Your task to perform on an android device: Go to display settings Image 0: 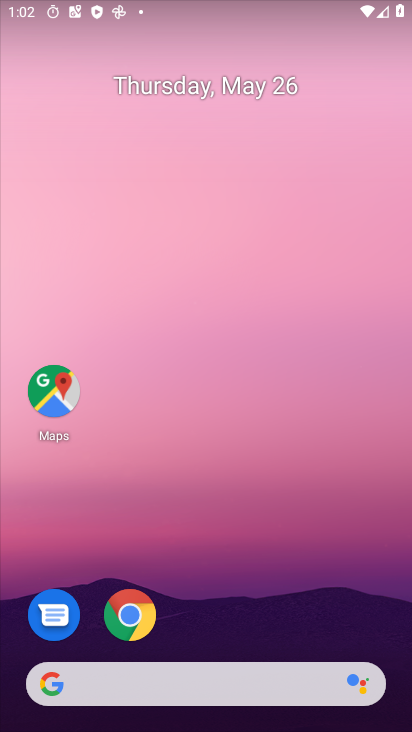
Step 0: drag from (240, 619) to (142, 181)
Your task to perform on an android device: Go to display settings Image 1: 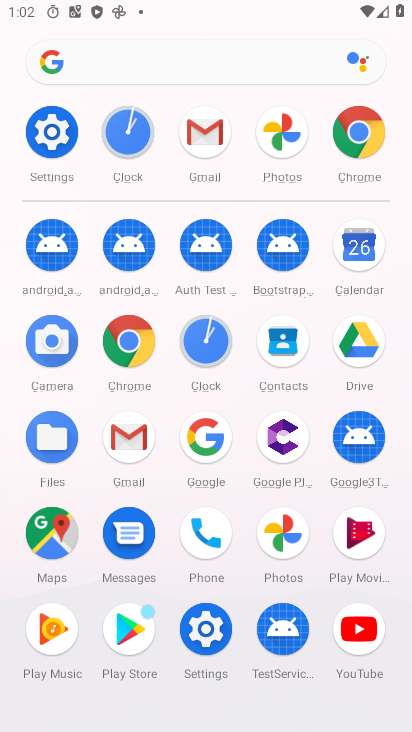
Step 1: click (55, 138)
Your task to perform on an android device: Go to display settings Image 2: 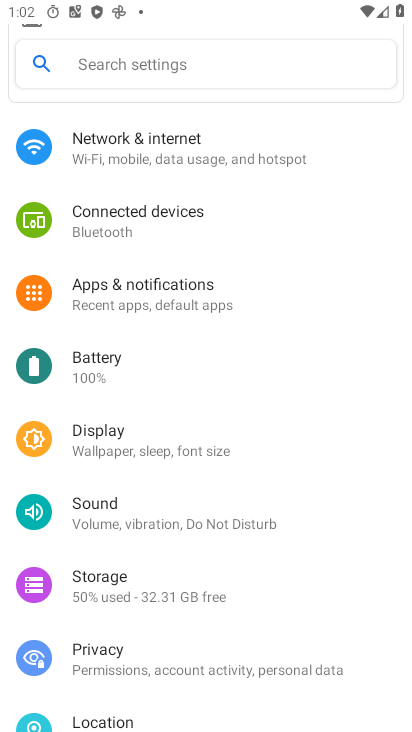
Step 2: click (182, 437)
Your task to perform on an android device: Go to display settings Image 3: 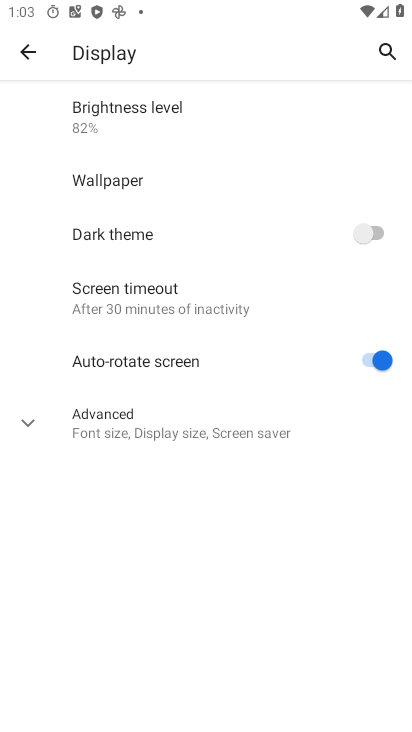
Step 3: task complete